Your task to perform on an android device: turn off wifi Image 0: 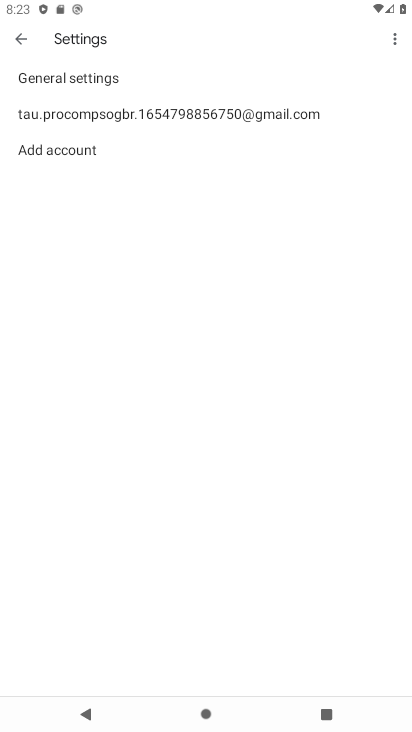
Step 0: press home button
Your task to perform on an android device: turn off wifi Image 1: 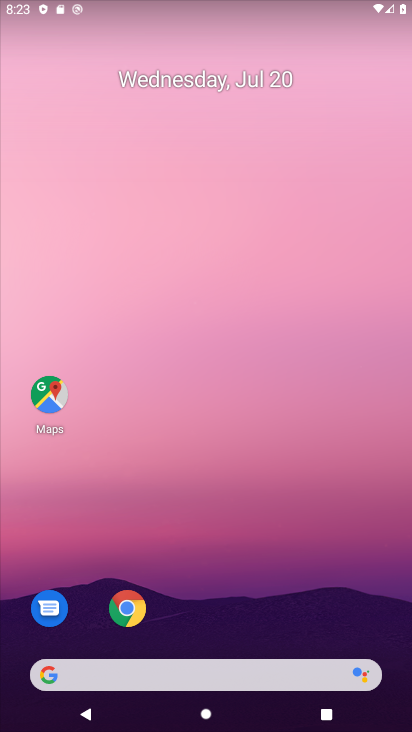
Step 1: drag from (266, 603) to (323, 170)
Your task to perform on an android device: turn off wifi Image 2: 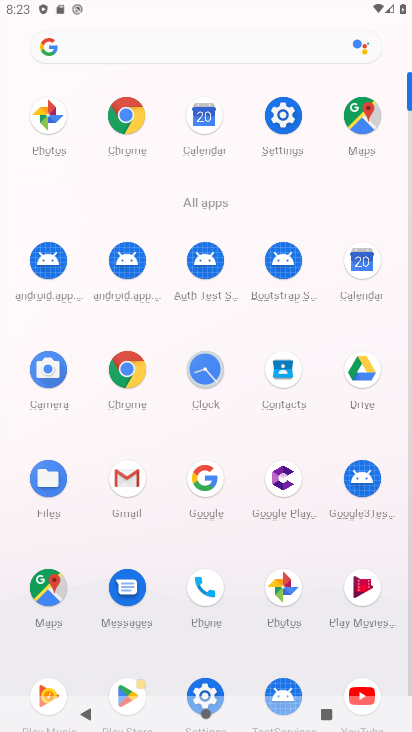
Step 2: click (296, 115)
Your task to perform on an android device: turn off wifi Image 3: 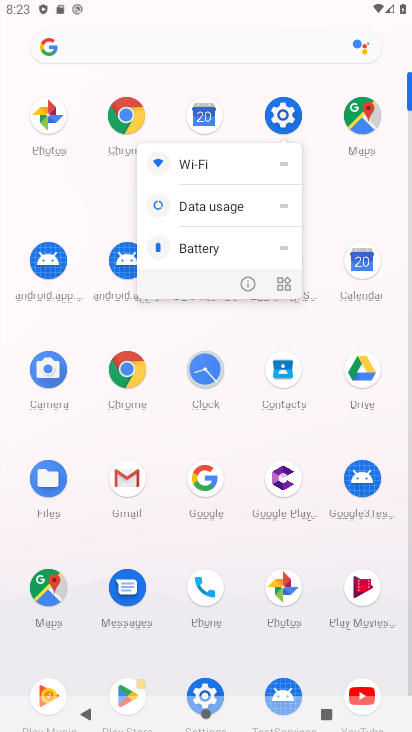
Step 3: click (296, 117)
Your task to perform on an android device: turn off wifi Image 4: 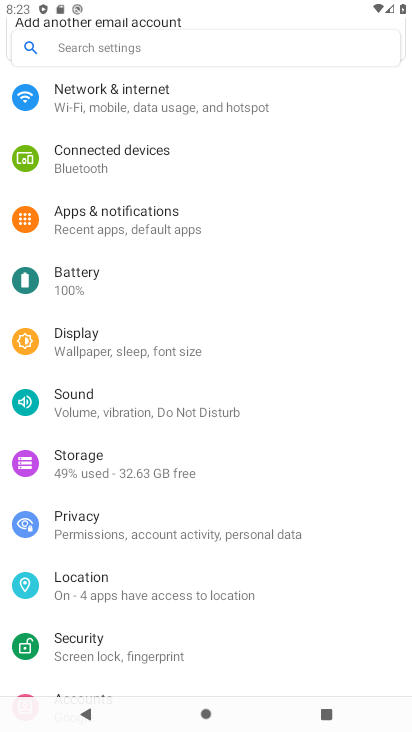
Step 4: click (101, 96)
Your task to perform on an android device: turn off wifi Image 5: 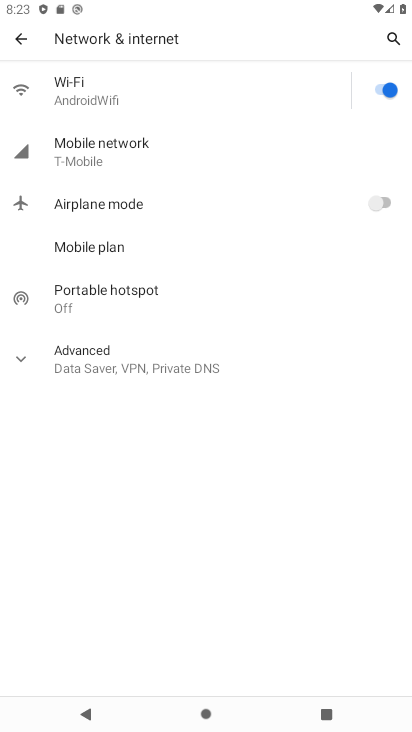
Step 5: click (383, 95)
Your task to perform on an android device: turn off wifi Image 6: 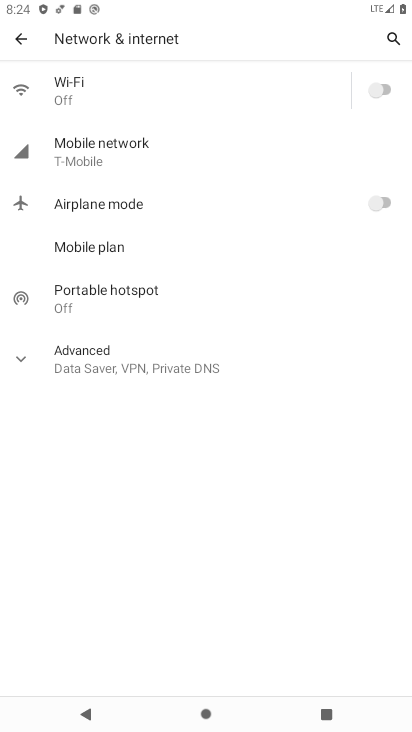
Step 6: task complete